Your task to perform on an android device: Find coffee shops on Maps Image 0: 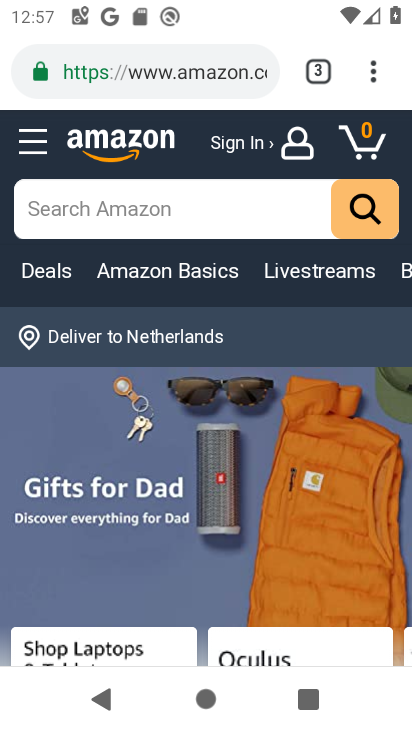
Step 0: press home button
Your task to perform on an android device: Find coffee shops on Maps Image 1: 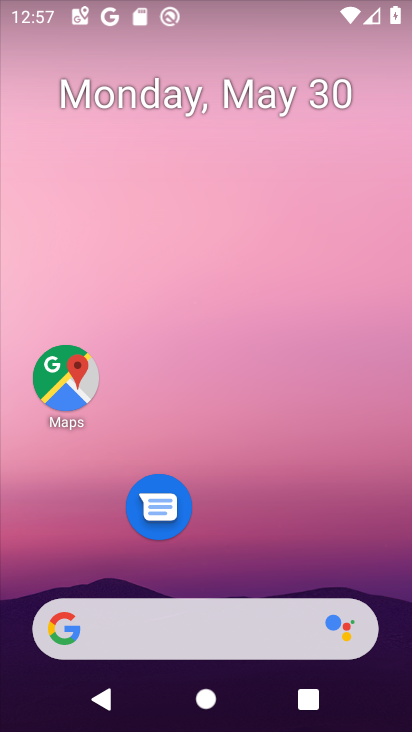
Step 1: drag from (259, 554) to (298, 89)
Your task to perform on an android device: Find coffee shops on Maps Image 2: 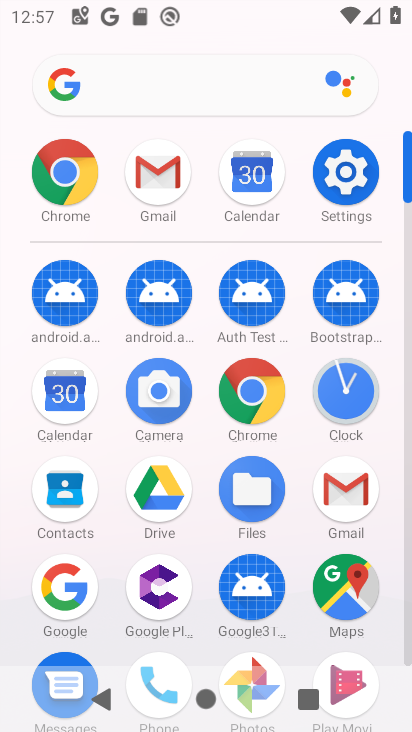
Step 2: click (333, 581)
Your task to perform on an android device: Find coffee shops on Maps Image 3: 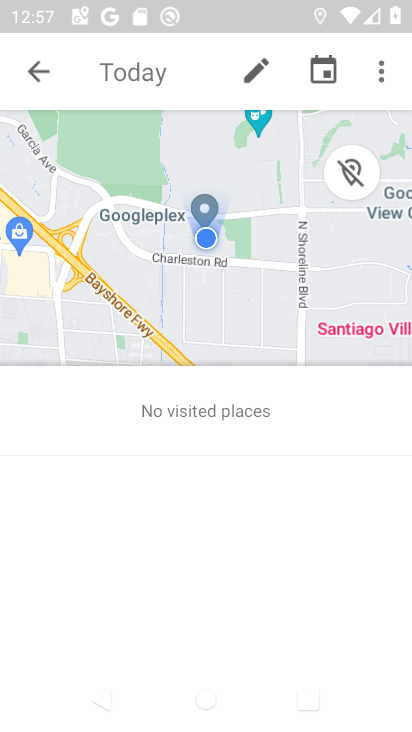
Step 3: click (30, 69)
Your task to perform on an android device: Find coffee shops on Maps Image 4: 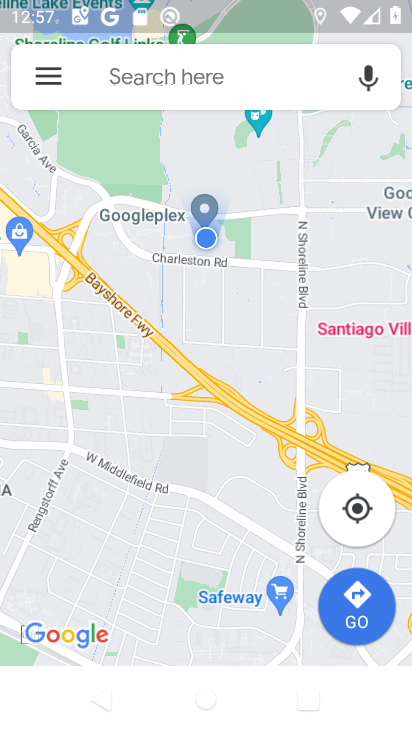
Step 4: click (131, 81)
Your task to perform on an android device: Find coffee shops on Maps Image 5: 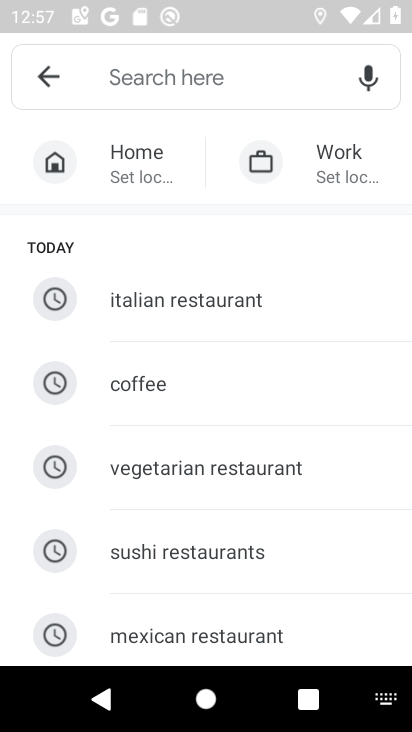
Step 5: type "coffee shops"
Your task to perform on an android device: Find coffee shops on Maps Image 6: 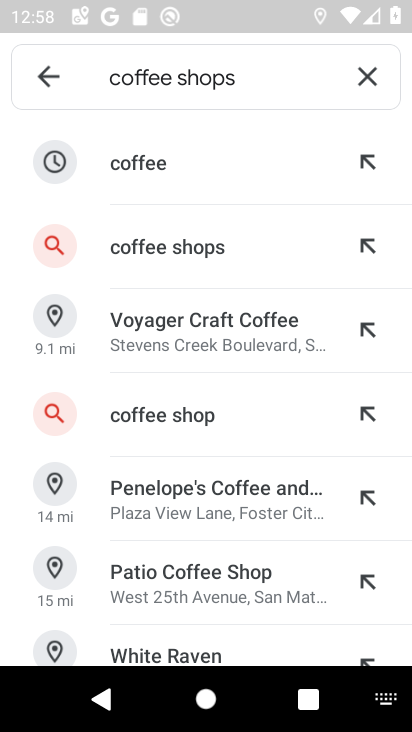
Step 6: click (182, 247)
Your task to perform on an android device: Find coffee shops on Maps Image 7: 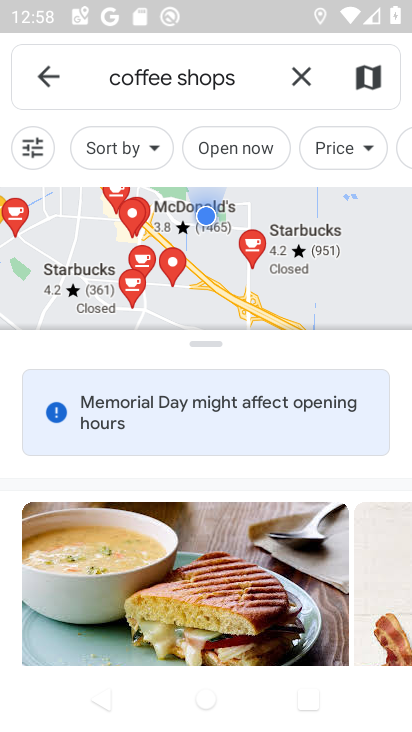
Step 7: task complete